Your task to perform on an android device: change the clock style Image 0: 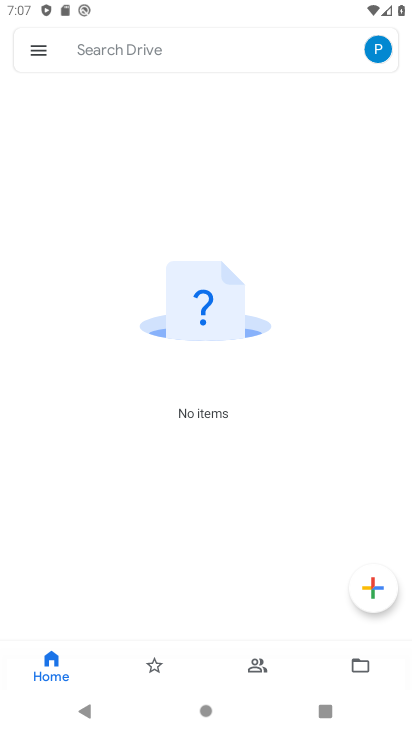
Step 0: press home button
Your task to perform on an android device: change the clock style Image 1: 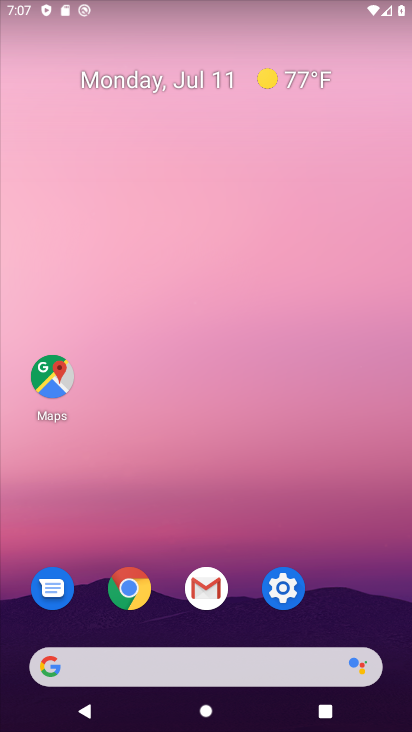
Step 1: drag from (231, 674) to (216, 235)
Your task to perform on an android device: change the clock style Image 2: 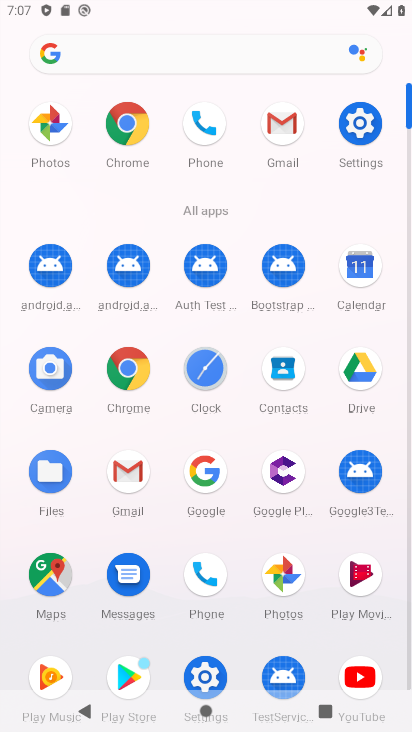
Step 2: click (219, 359)
Your task to perform on an android device: change the clock style Image 3: 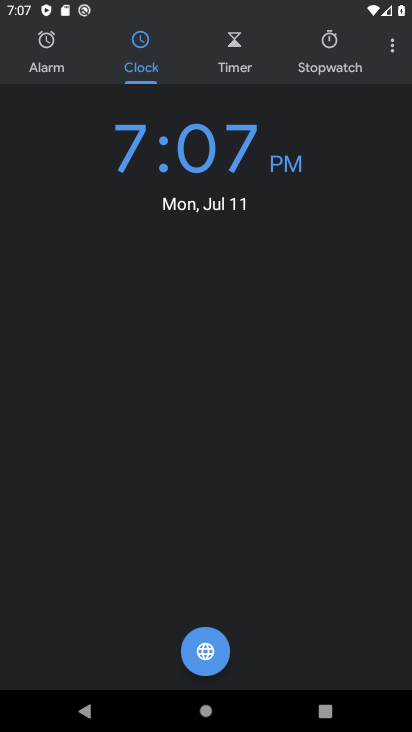
Step 3: click (391, 58)
Your task to perform on an android device: change the clock style Image 4: 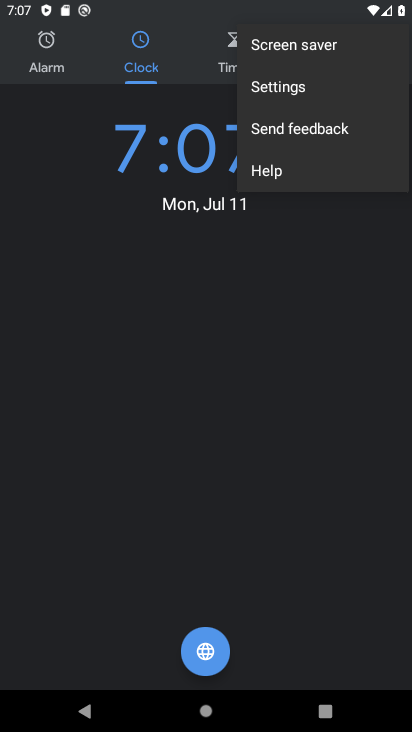
Step 4: click (281, 92)
Your task to perform on an android device: change the clock style Image 5: 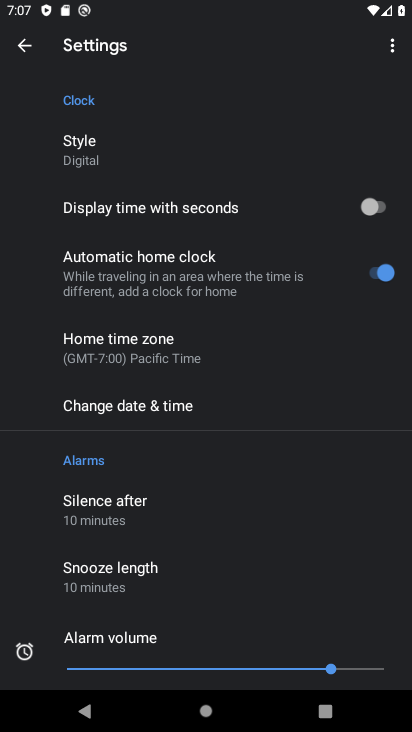
Step 5: click (166, 154)
Your task to perform on an android device: change the clock style Image 6: 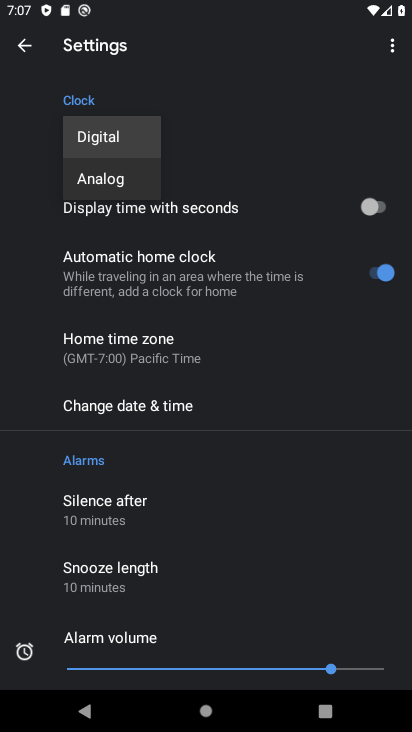
Step 6: click (120, 179)
Your task to perform on an android device: change the clock style Image 7: 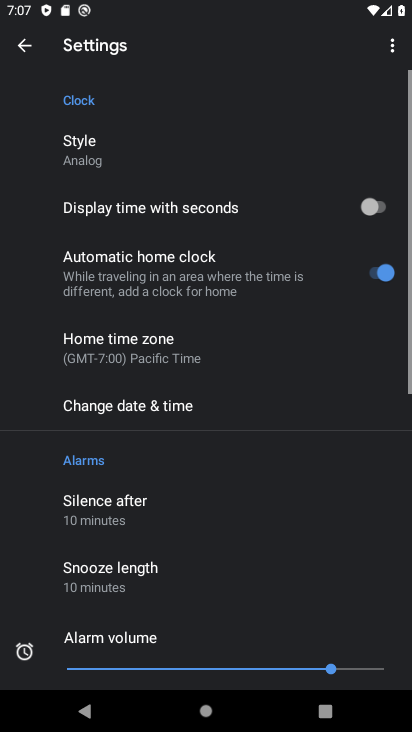
Step 7: task complete